Your task to perform on an android device: Search for Italian restaurants on Maps Image 0: 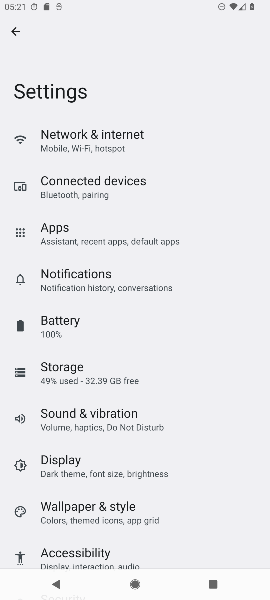
Step 0: press home button
Your task to perform on an android device: Search for Italian restaurants on Maps Image 1: 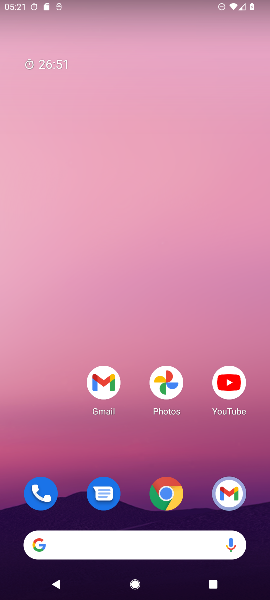
Step 1: drag from (63, 468) to (78, 133)
Your task to perform on an android device: Search for Italian restaurants on Maps Image 2: 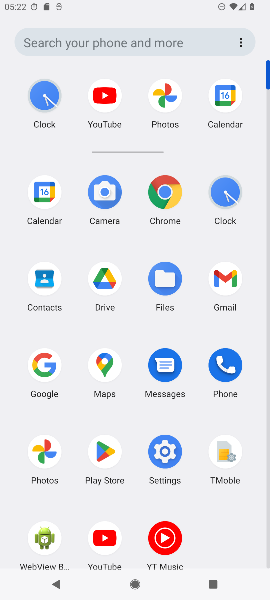
Step 2: click (102, 365)
Your task to perform on an android device: Search for Italian restaurants on Maps Image 3: 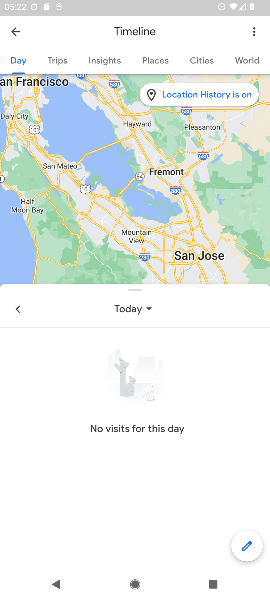
Step 3: press back button
Your task to perform on an android device: Search for Italian restaurants on Maps Image 4: 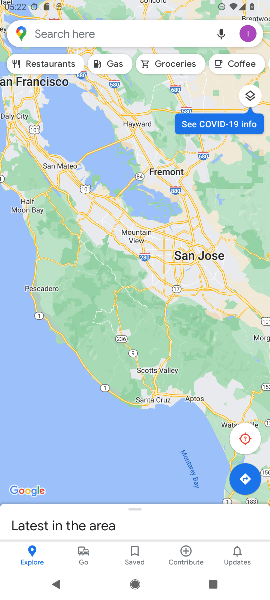
Step 4: click (125, 34)
Your task to perform on an android device: Search for Italian restaurants on Maps Image 5: 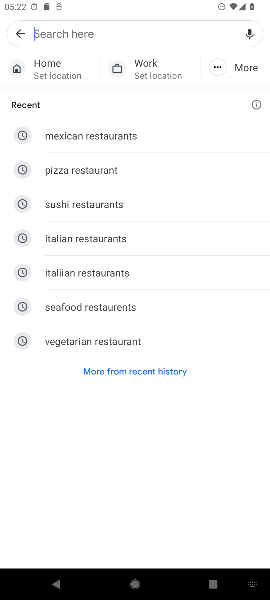
Step 5: type "italian restaurants"
Your task to perform on an android device: Search for Italian restaurants on Maps Image 6: 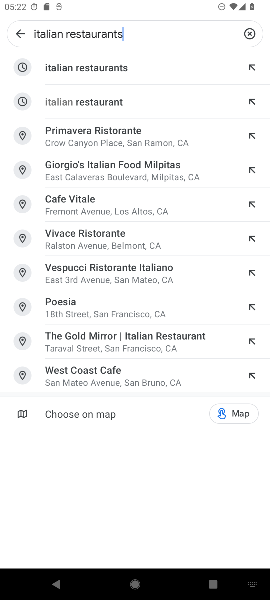
Step 6: click (145, 74)
Your task to perform on an android device: Search for Italian restaurants on Maps Image 7: 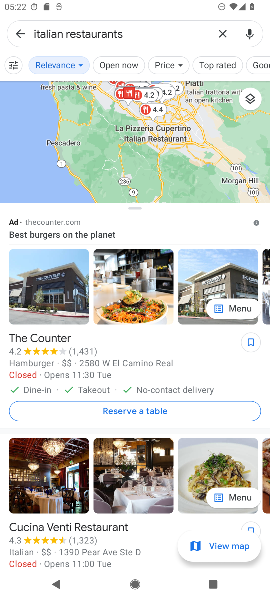
Step 7: task complete